Your task to perform on an android device: Open the Play Movies app and select the watchlist tab. Image 0: 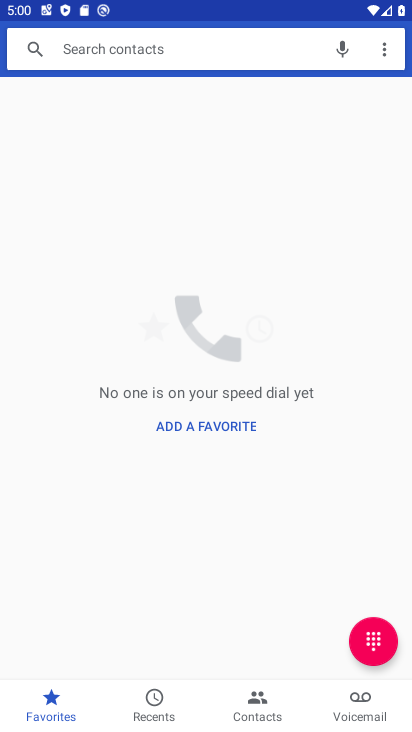
Step 0: press home button
Your task to perform on an android device: Open the Play Movies app and select the watchlist tab. Image 1: 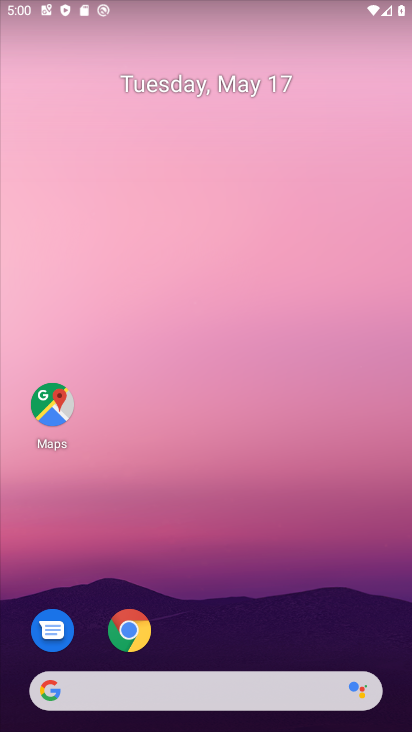
Step 1: drag from (292, 622) to (266, 80)
Your task to perform on an android device: Open the Play Movies app and select the watchlist tab. Image 2: 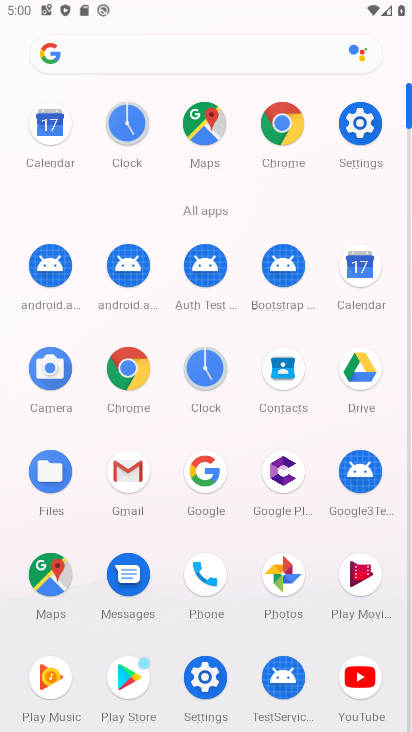
Step 2: drag from (249, 635) to (270, 354)
Your task to perform on an android device: Open the Play Movies app and select the watchlist tab. Image 3: 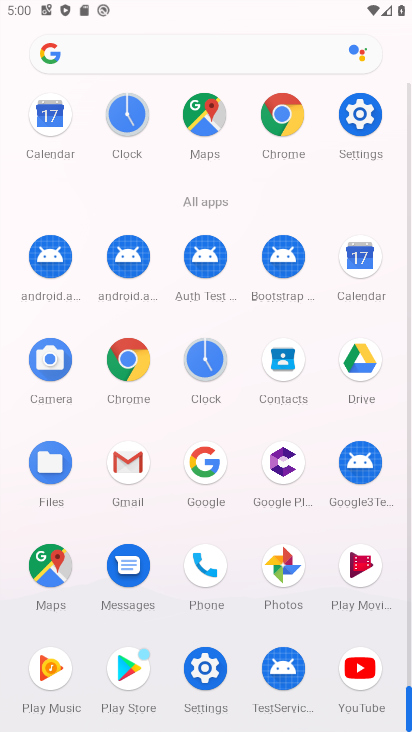
Step 3: click (364, 577)
Your task to perform on an android device: Open the Play Movies app and select the watchlist tab. Image 4: 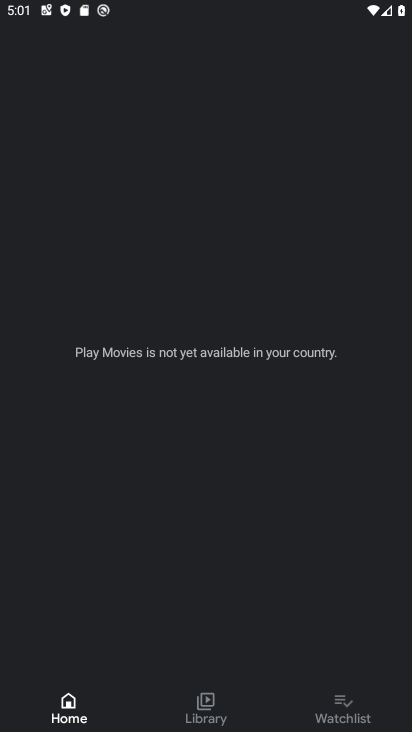
Step 4: click (345, 708)
Your task to perform on an android device: Open the Play Movies app and select the watchlist tab. Image 5: 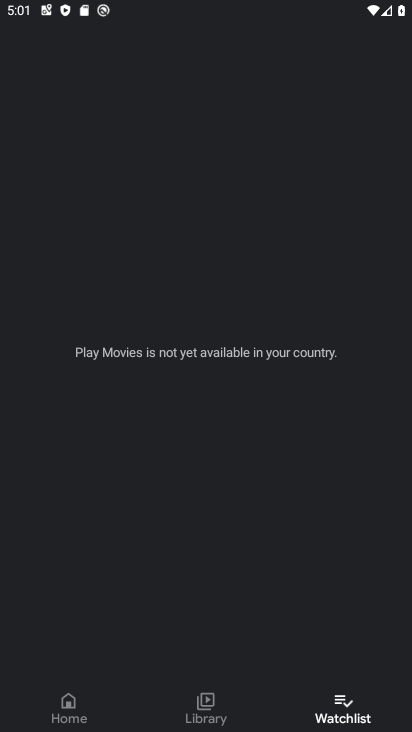
Step 5: task complete